Your task to perform on an android device: Open calendar and show me the fourth week of next month Image 0: 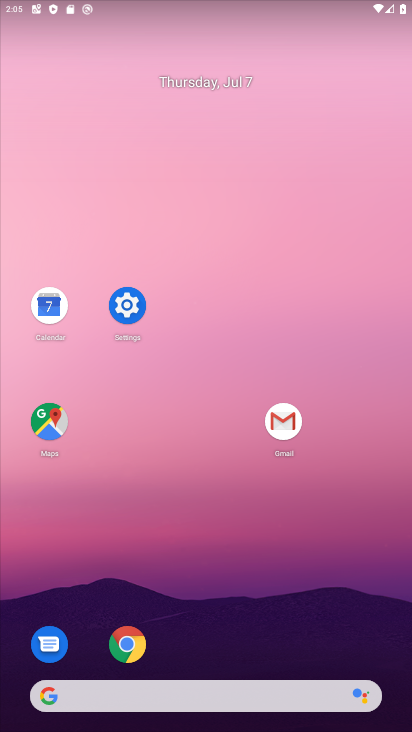
Step 0: click (42, 308)
Your task to perform on an android device: Open calendar and show me the fourth week of next month Image 1: 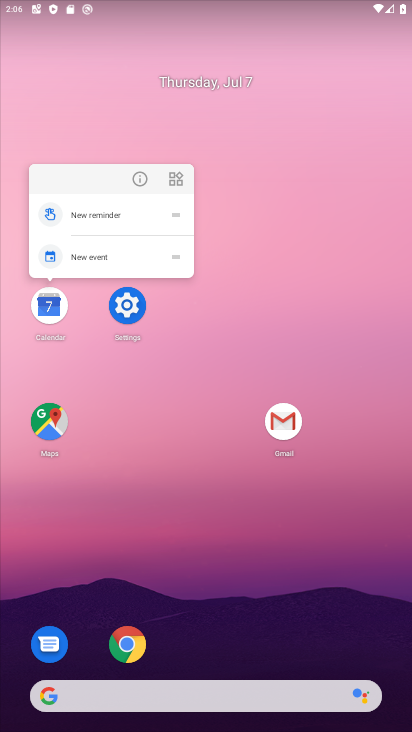
Step 1: click (348, 292)
Your task to perform on an android device: Open calendar and show me the fourth week of next month Image 2: 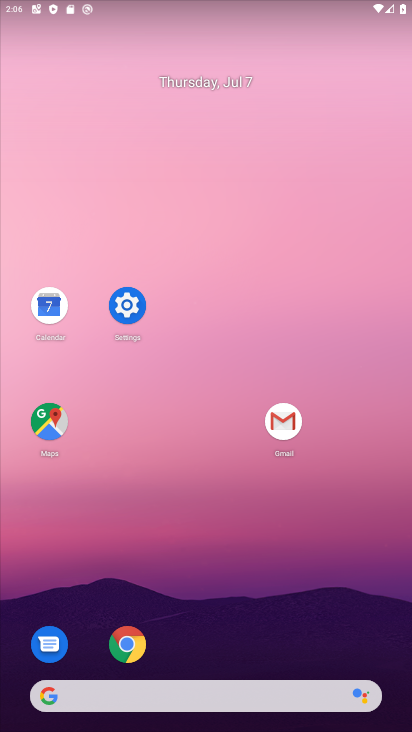
Step 2: click (44, 311)
Your task to perform on an android device: Open calendar and show me the fourth week of next month Image 3: 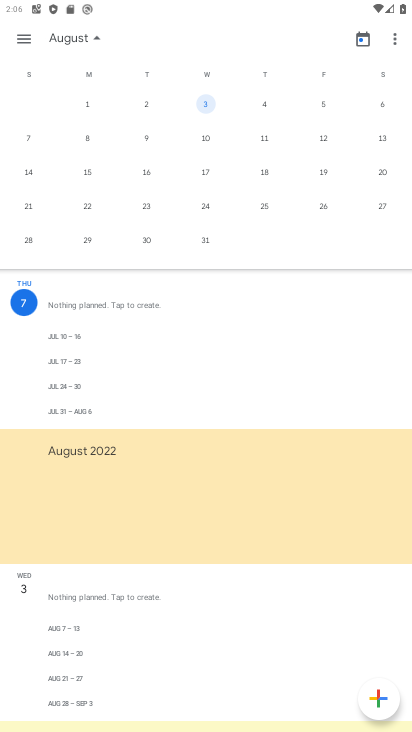
Step 3: click (264, 205)
Your task to perform on an android device: Open calendar and show me the fourth week of next month Image 4: 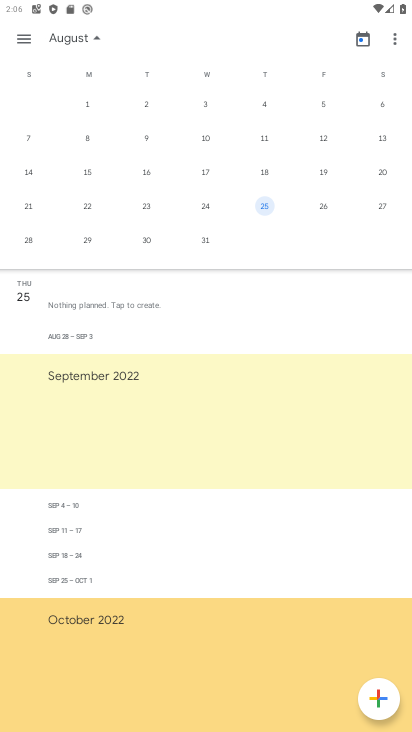
Step 4: task complete